Your task to perform on an android device: What is the recent news? Image 0: 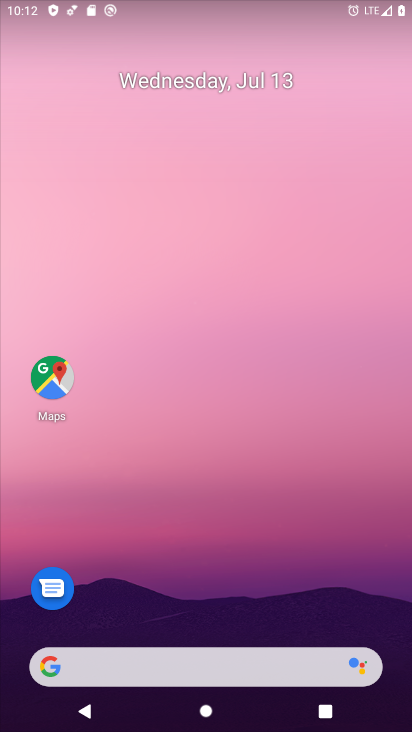
Step 0: click (226, 657)
Your task to perform on an android device: What is the recent news? Image 1: 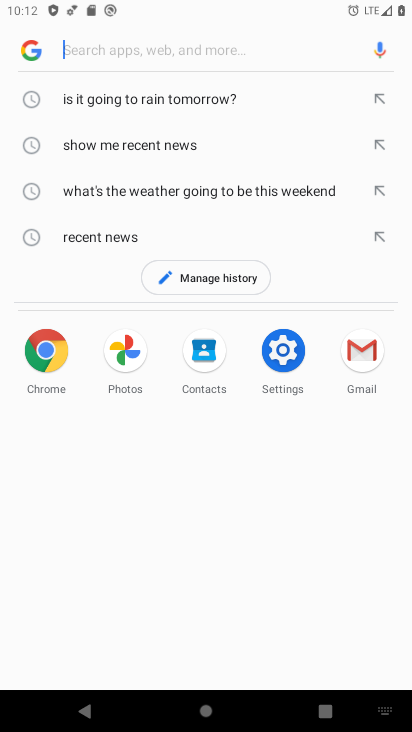
Step 1: click (136, 241)
Your task to perform on an android device: What is the recent news? Image 2: 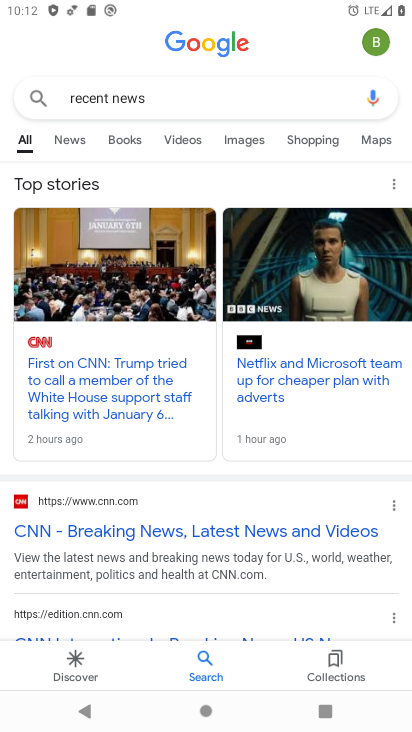
Step 2: task complete